Your task to perform on an android device: What's on my calendar today? Image 0: 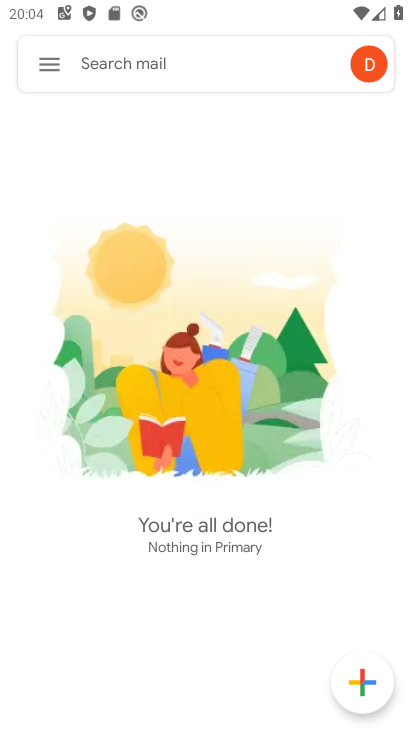
Step 0: press home button
Your task to perform on an android device: What's on my calendar today? Image 1: 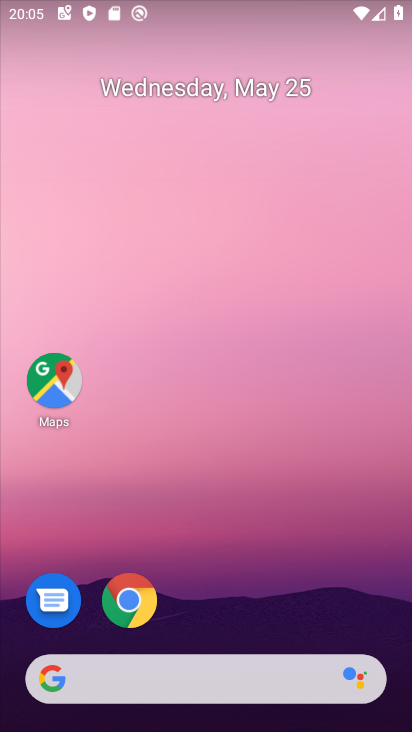
Step 1: drag from (318, 551) to (311, 210)
Your task to perform on an android device: What's on my calendar today? Image 2: 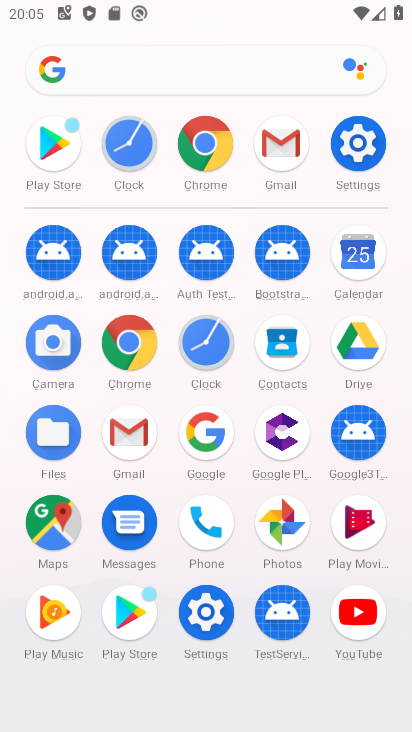
Step 2: click (356, 270)
Your task to perform on an android device: What's on my calendar today? Image 3: 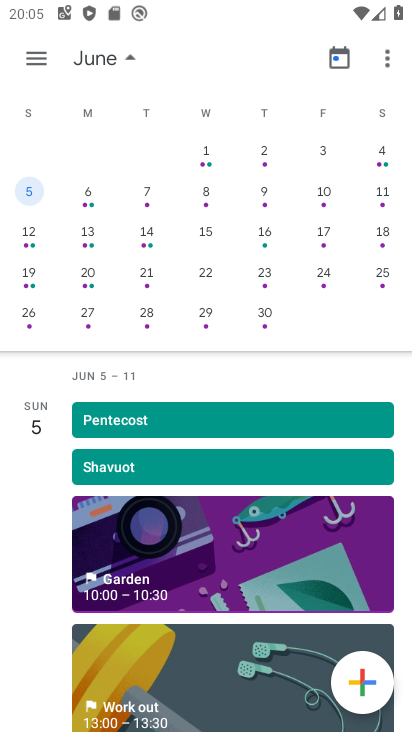
Step 3: task complete